Your task to perform on an android device: check google app version Image 0: 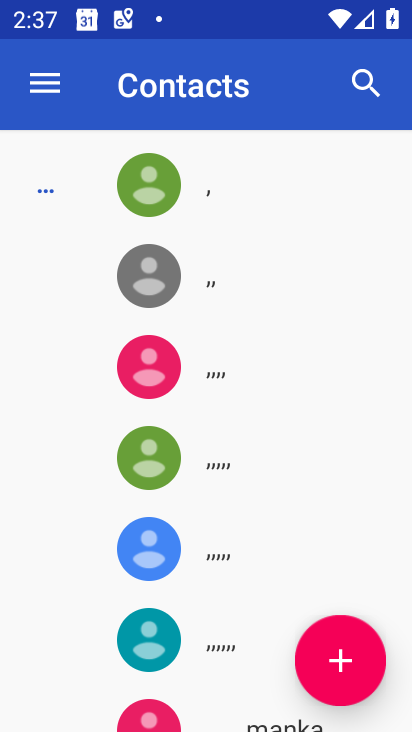
Step 0: press home button
Your task to perform on an android device: check google app version Image 1: 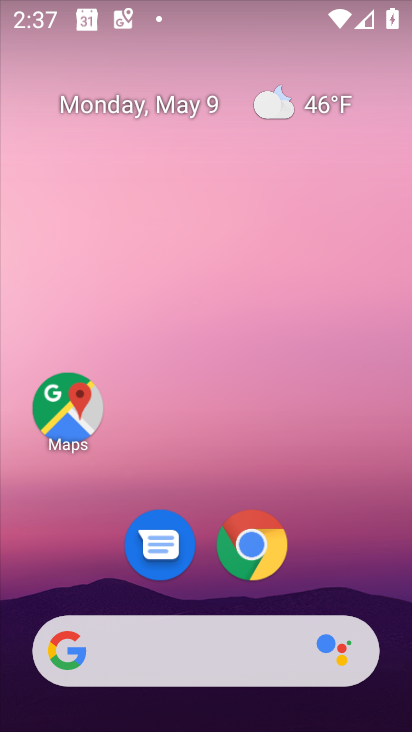
Step 1: drag from (172, 604) to (185, 222)
Your task to perform on an android device: check google app version Image 2: 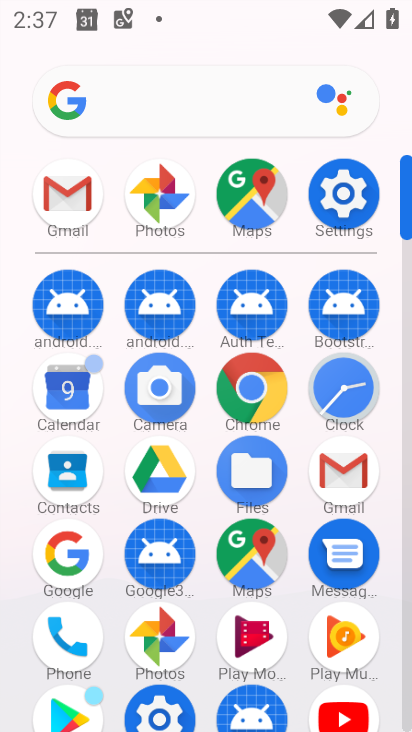
Step 2: click (79, 550)
Your task to perform on an android device: check google app version Image 3: 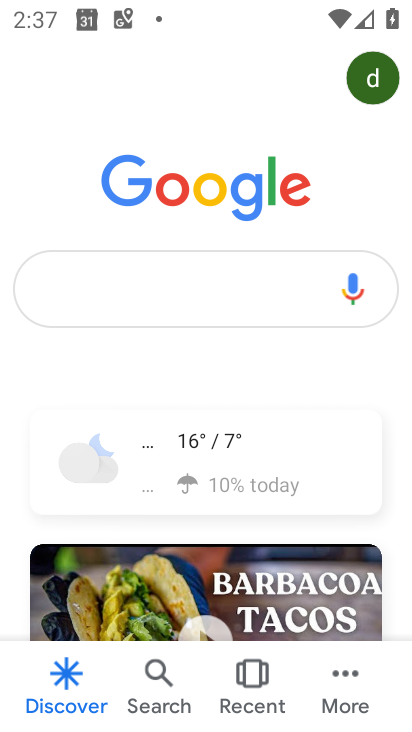
Step 3: click (353, 681)
Your task to perform on an android device: check google app version Image 4: 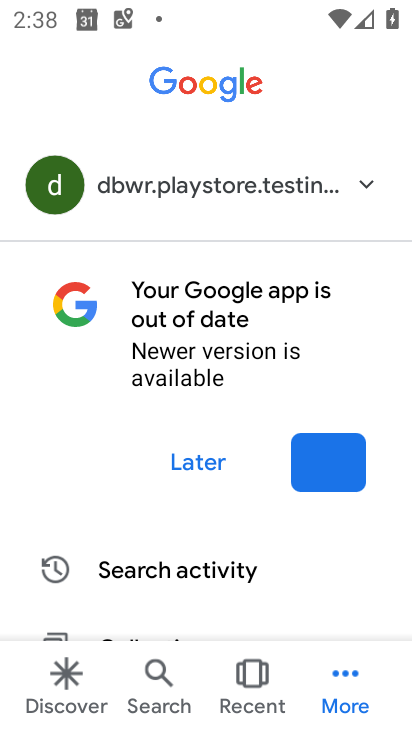
Step 4: click (352, 676)
Your task to perform on an android device: check google app version Image 5: 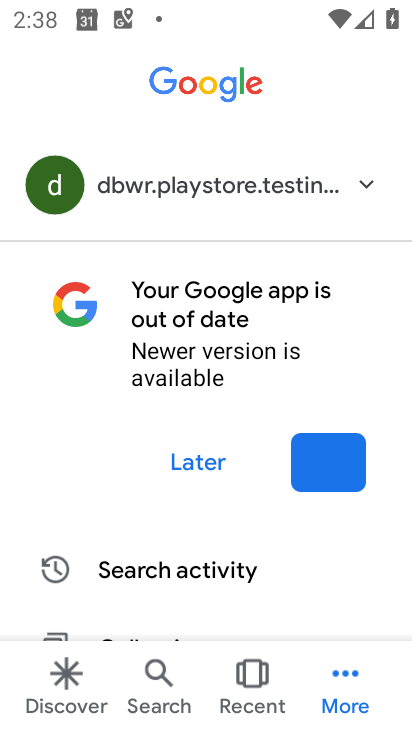
Step 5: click (352, 676)
Your task to perform on an android device: check google app version Image 6: 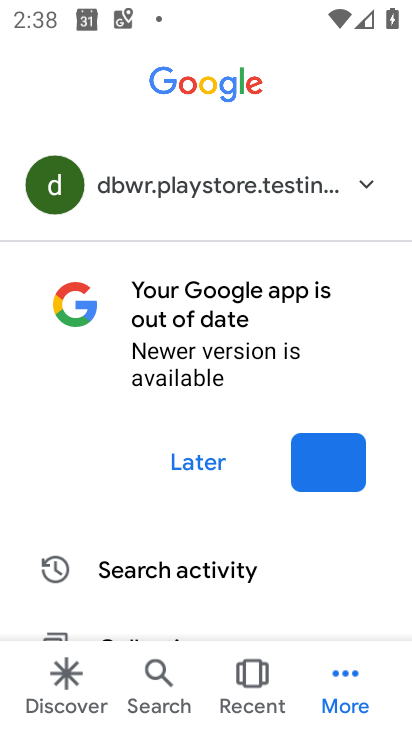
Step 6: click (344, 686)
Your task to perform on an android device: check google app version Image 7: 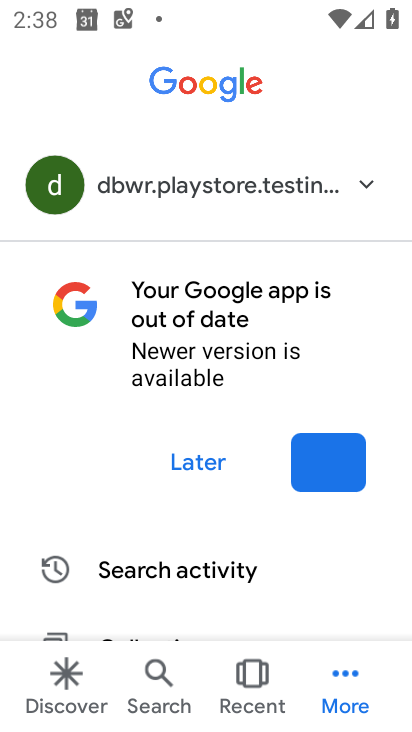
Step 7: click (340, 656)
Your task to perform on an android device: check google app version Image 8: 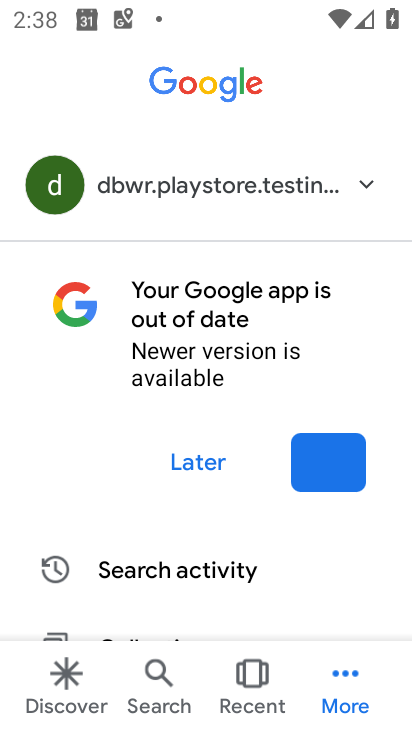
Step 8: click (346, 674)
Your task to perform on an android device: check google app version Image 9: 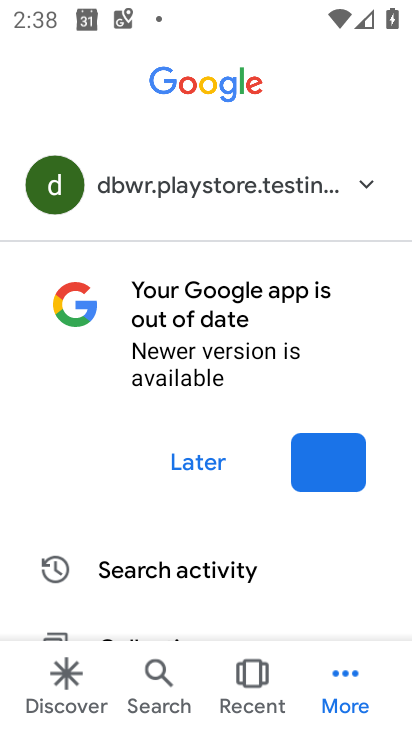
Step 9: drag from (171, 517) to (255, 204)
Your task to perform on an android device: check google app version Image 10: 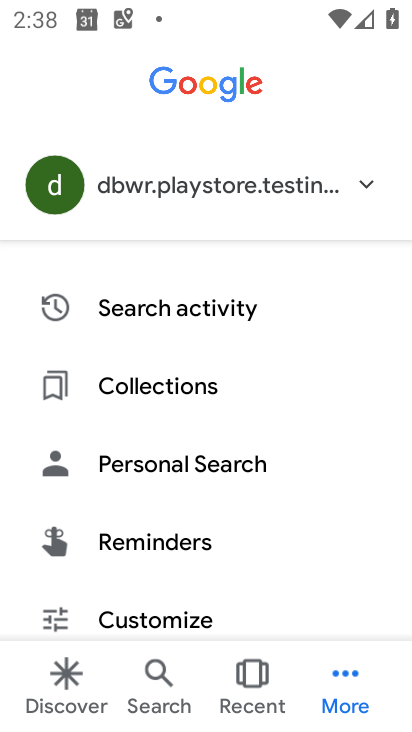
Step 10: click (334, 680)
Your task to perform on an android device: check google app version Image 11: 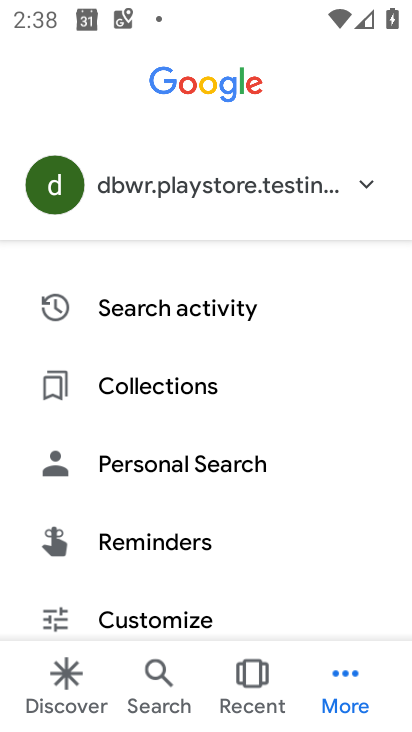
Step 11: drag from (235, 627) to (253, 356)
Your task to perform on an android device: check google app version Image 12: 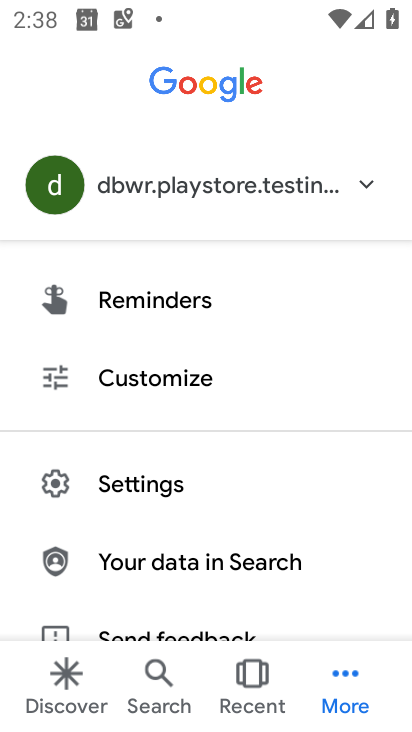
Step 12: drag from (228, 562) to (277, 292)
Your task to perform on an android device: check google app version Image 13: 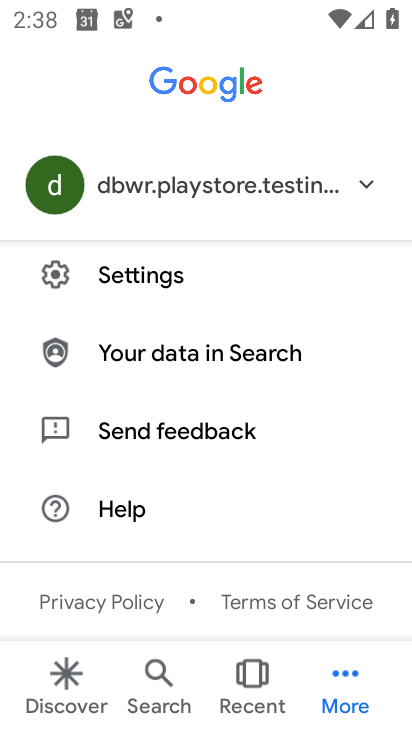
Step 13: click (154, 280)
Your task to perform on an android device: check google app version Image 14: 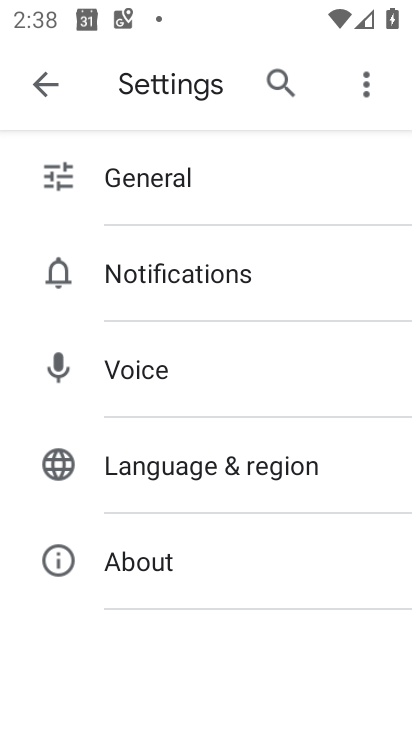
Step 14: click (171, 551)
Your task to perform on an android device: check google app version Image 15: 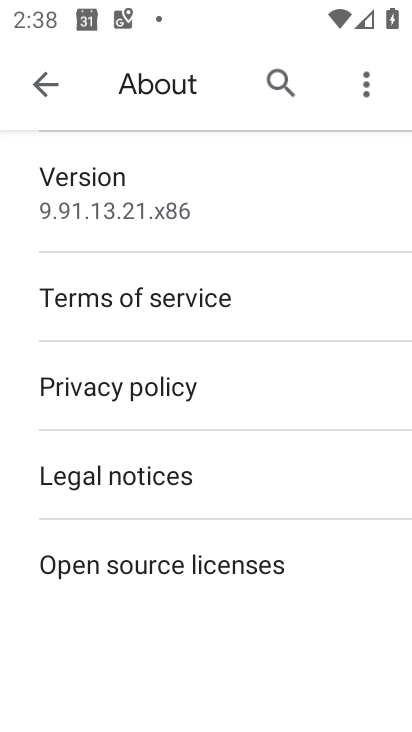
Step 15: click (248, 215)
Your task to perform on an android device: check google app version Image 16: 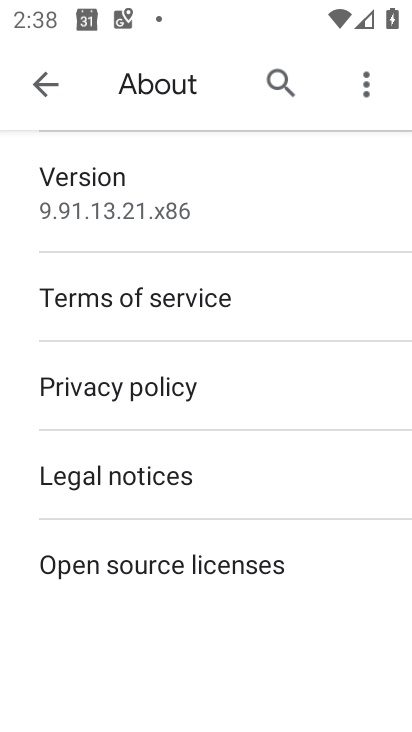
Step 16: task complete